Your task to perform on an android device: set the timer Image 0: 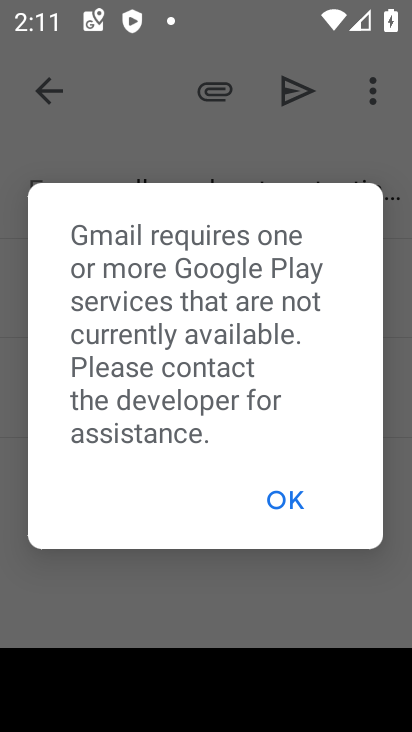
Step 0: press home button
Your task to perform on an android device: set the timer Image 1: 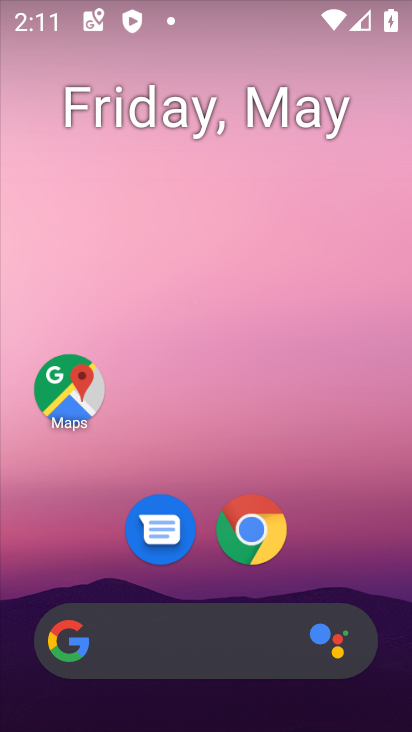
Step 1: drag from (358, 504) to (268, 5)
Your task to perform on an android device: set the timer Image 2: 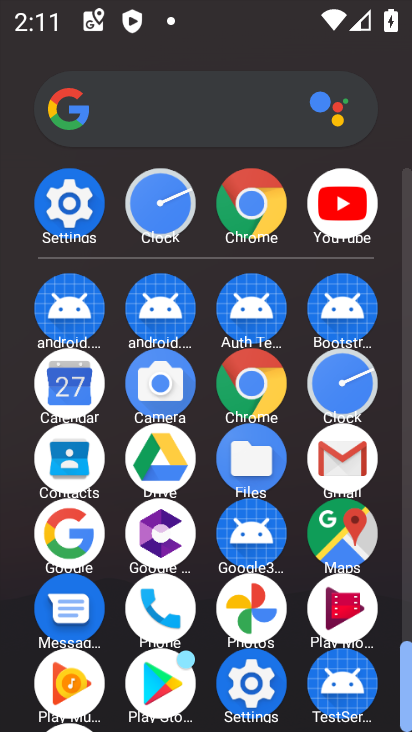
Step 2: click (268, 5)
Your task to perform on an android device: set the timer Image 3: 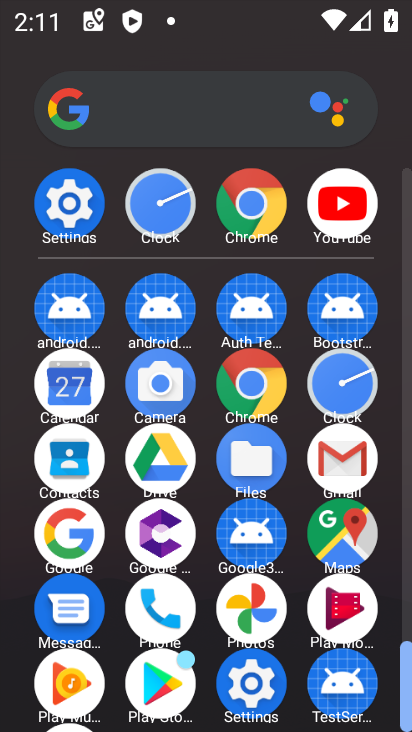
Step 3: click (169, 204)
Your task to perform on an android device: set the timer Image 4: 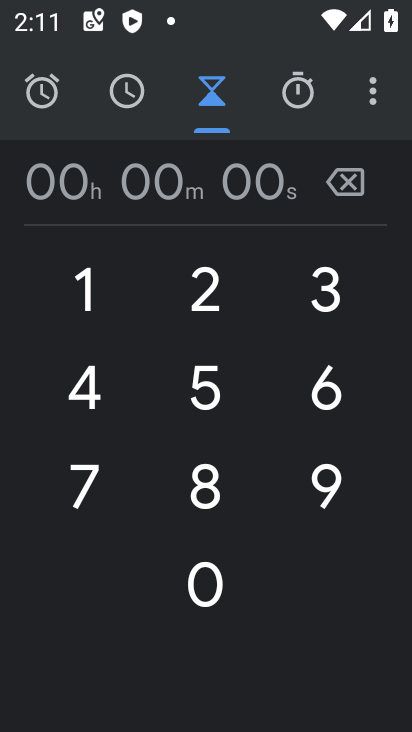
Step 4: task complete